Your task to perform on an android device: change the clock style Image 0: 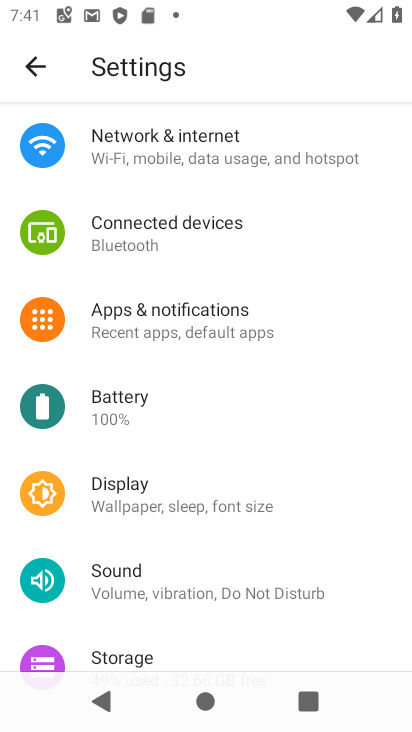
Step 0: press home button
Your task to perform on an android device: change the clock style Image 1: 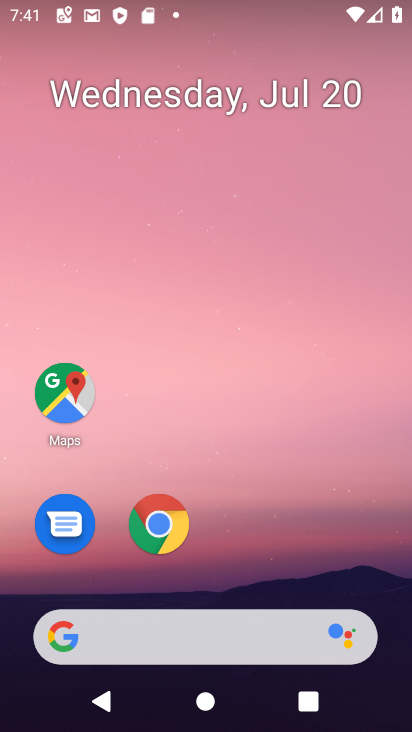
Step 1: drag from (155, 629) to (299, 107)
Your task to perform on an android device: change the clock style Image 2: 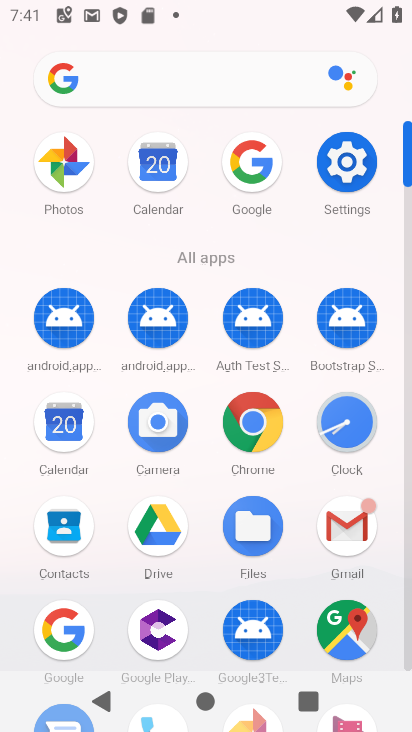
Step 2: click (351, 432)
Your task to perform on an android device: change the clock style Image 3: 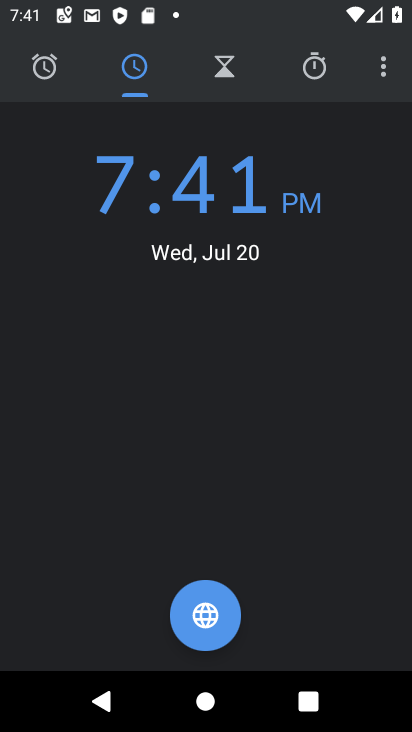
Step 3: click (385, 68)
Your task to perform on an android device: change the clock style Image 4: 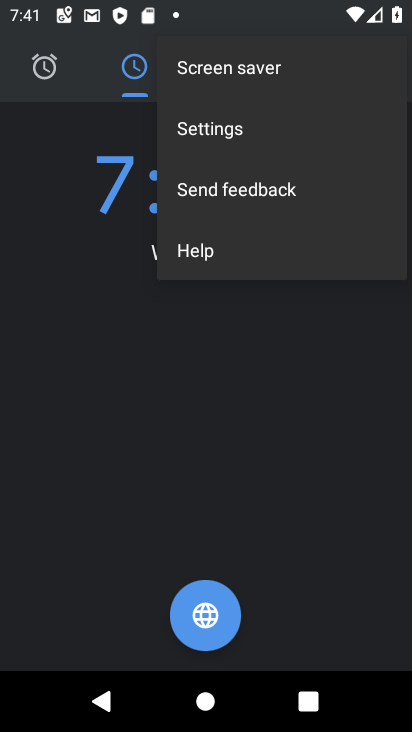
Step 4: click (235, 123)
Your task to perform on an android device: change the clock style Image 5: 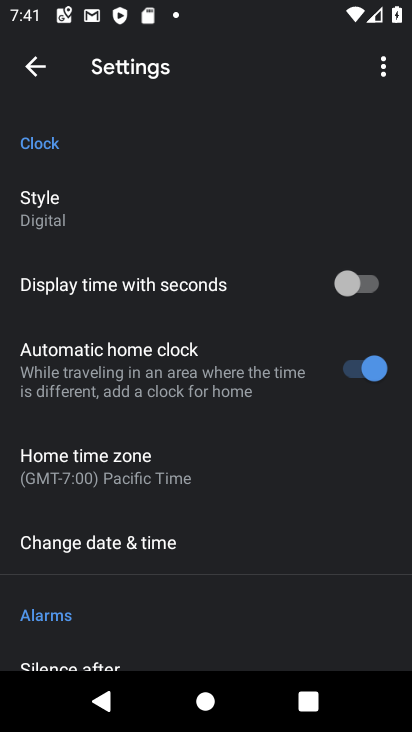
Step 5: click (41, 205)
Your task to perform on an android device: change the clock style Image 6: 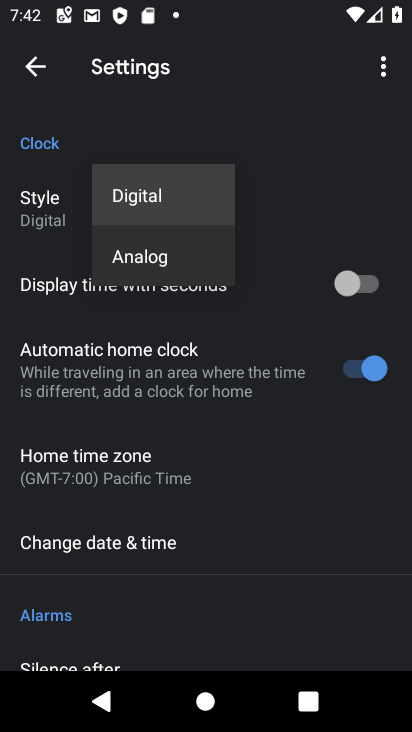
Step 6: click (153, 255)
Your task to perform on an android device: change the clock style Image 7: 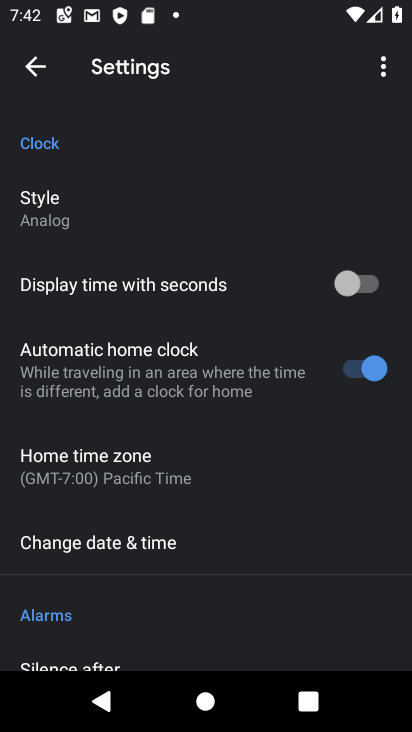
Step 7: task complete